Your task to perform on an android device: turn on location history Image 0: 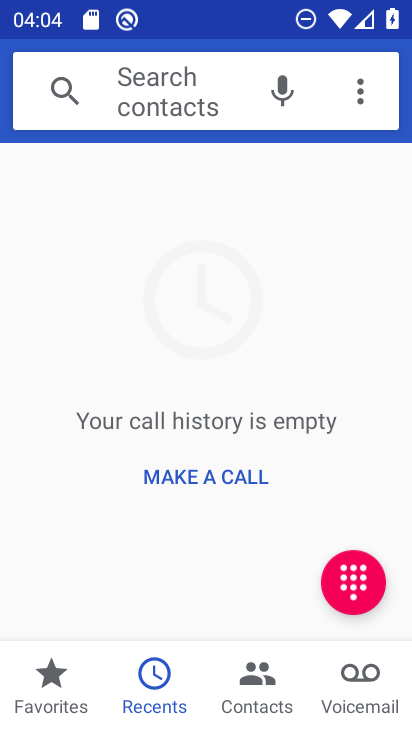
Step 0: press home button
Your task to perform on an android device: turn on location history Image 1: 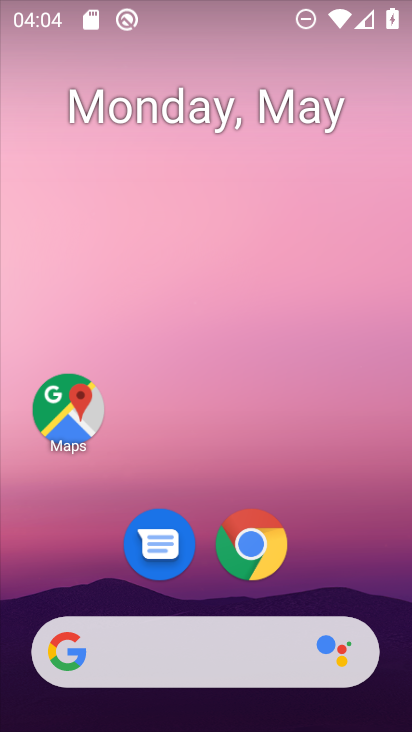
Step 1: drag from (384, 565) to (387, 172)
Your task to perform on an android device: turn on location history Image 2: 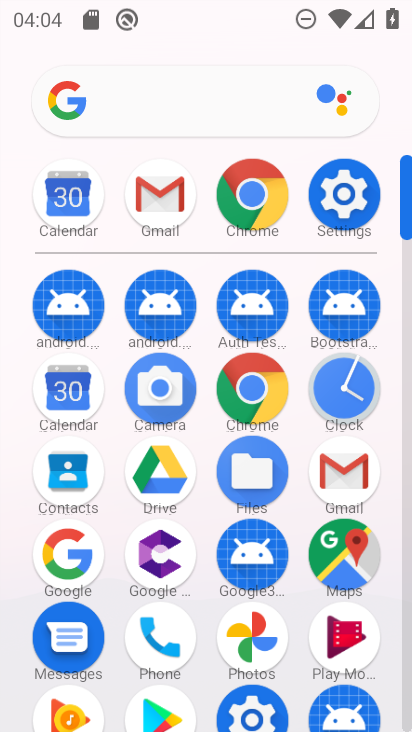
Step 2: click (351, 214)
Your task to perform on an android device: turn on location history Image 3: 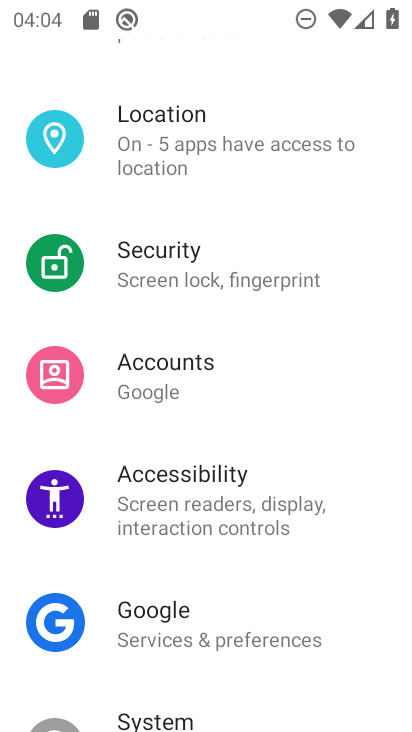
Step 3: drag from (373, 568) to (344, 389)
Your task to perform on an android device: turn on location history Image 4: 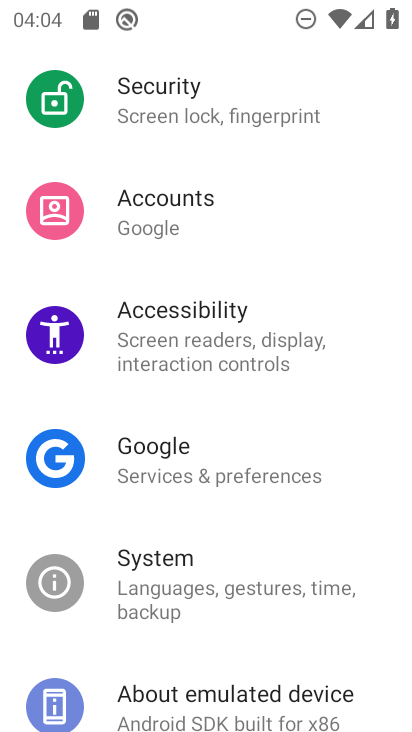
Step 4: drag from (342, 236) to (347, 418)
Your task to perform on an android device: turn on location history Image 5: 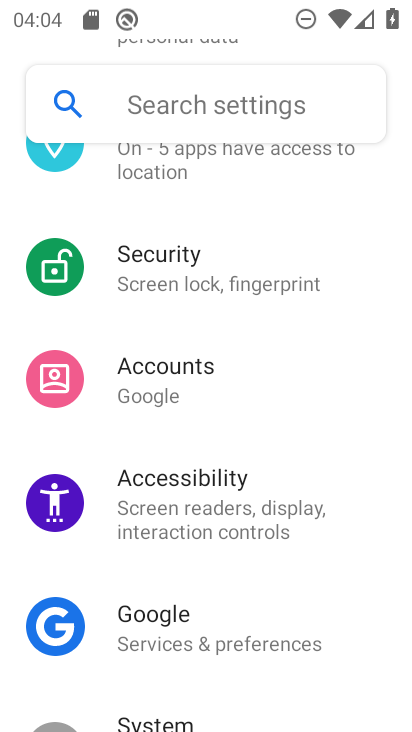
Step 5: drag from (351, 225) to (350, 374)
Your task to perform on an android device: turn on location history Image 6: 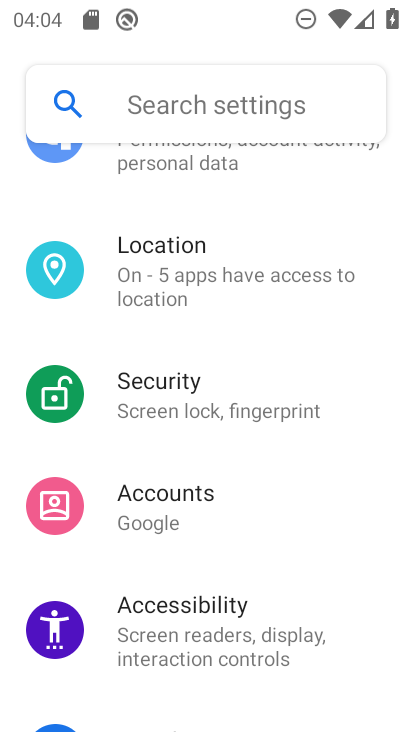
Step 6: click (297, 299)
Your task to perform on an android device: turn on location history Image 7: 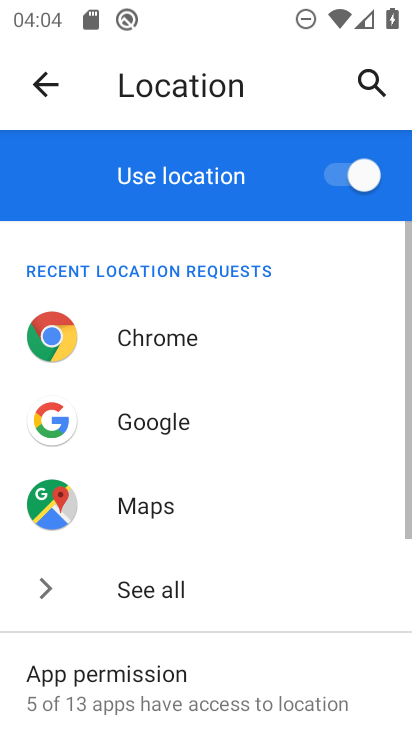
Step 7: drag from (289, 552) to (293, 435)
Your task to perform on an android device: turn on location history Image 8: 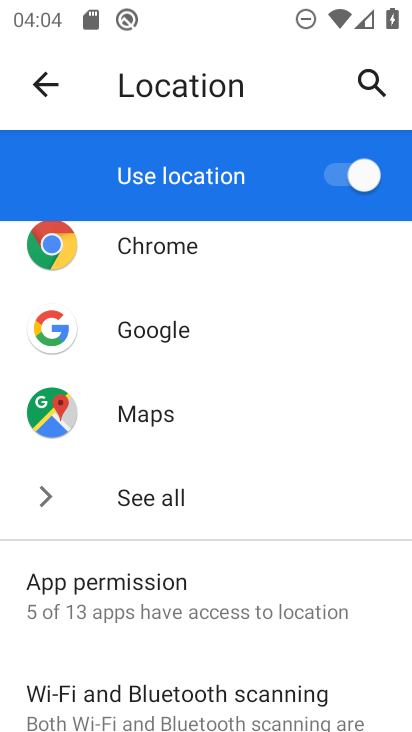
Step 8: drag from (346, 641) to (354, 409)
Your task to perform on an android device: turn on location history Image 9: 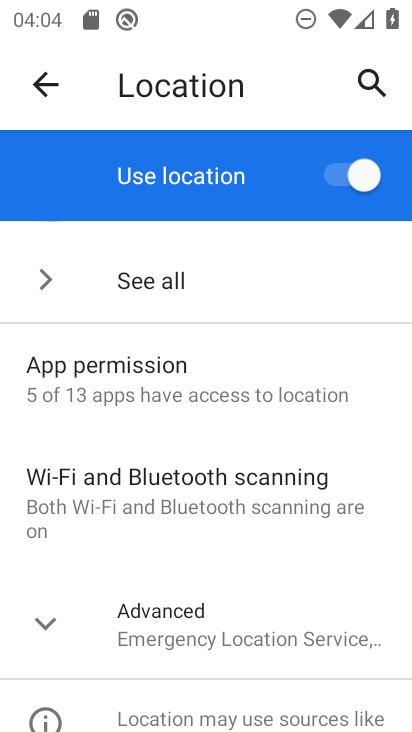
Step 9: click (348, 638)
Your task to perform on an android device: turn on location history Image 10: 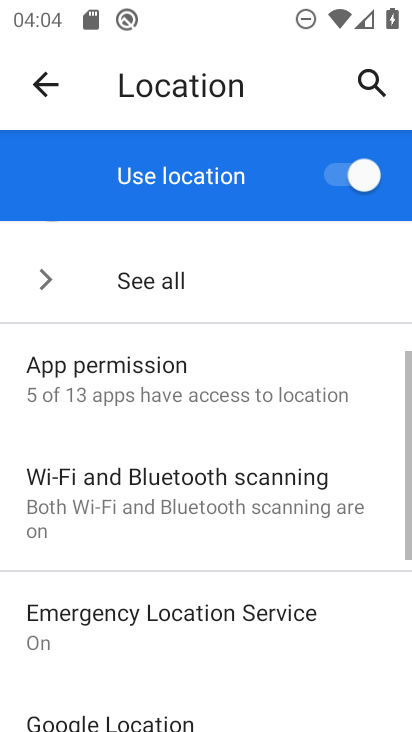
Step 10: drag from (348, 638) to (365, 488)
Your task to perform on an android device: turn on location history Image 11: 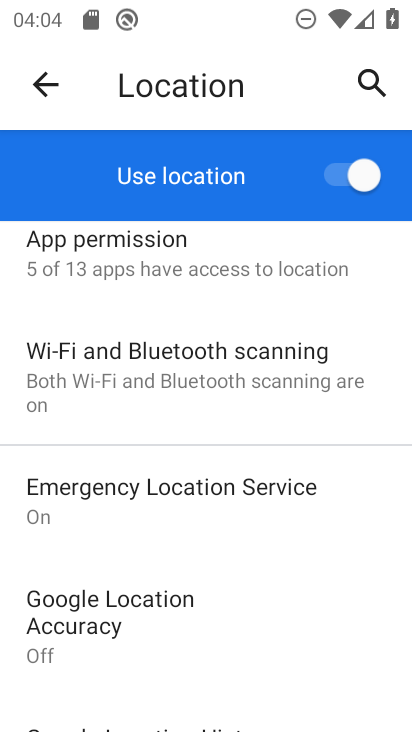
Step 11: drag from (361, 644) to (356, 439)
Your task to perform on an android device: turn on location history Image 12: 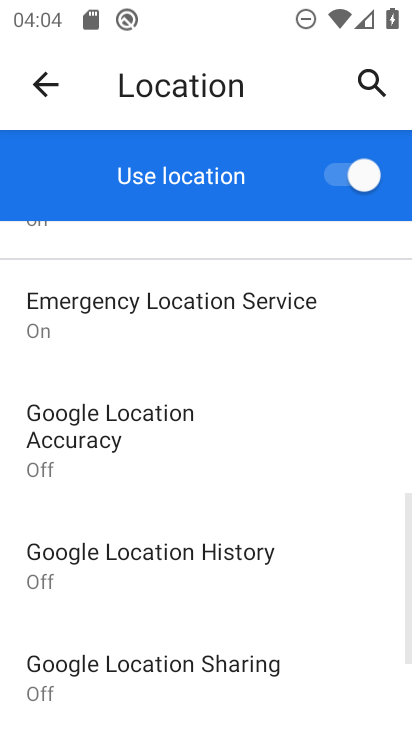
Step 12: click (296, 587)
Your task to perform on an android device: turn on location history Image 13: 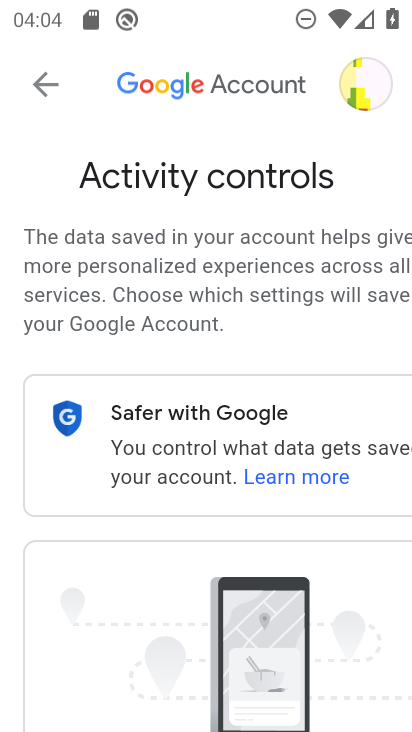
Step 13: drag from (296, 587) to (302, 427)
Your task to perform on an android device: turn on location history Image 14: 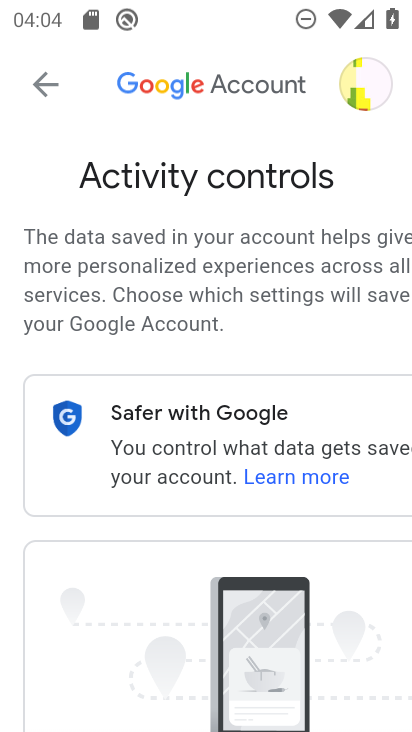
Step 14: drag from (356, 638) to (350, 436)
Your task to perform on an android device: turn on location history Image 15: 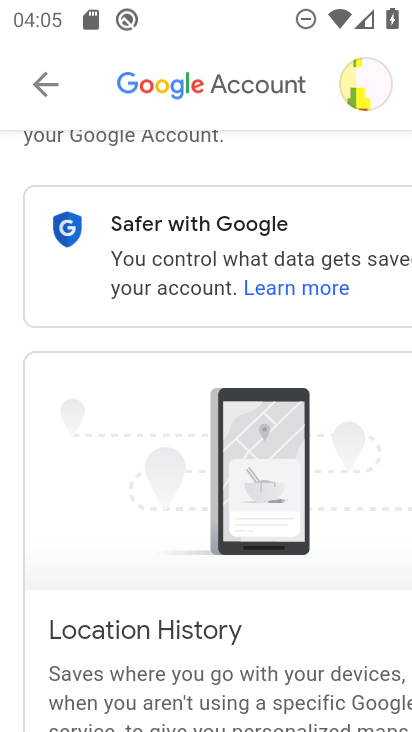
Step 15: drag from (337, 649) to (341, 443)
Your task to perform on an android device: turn on location history Image 16: 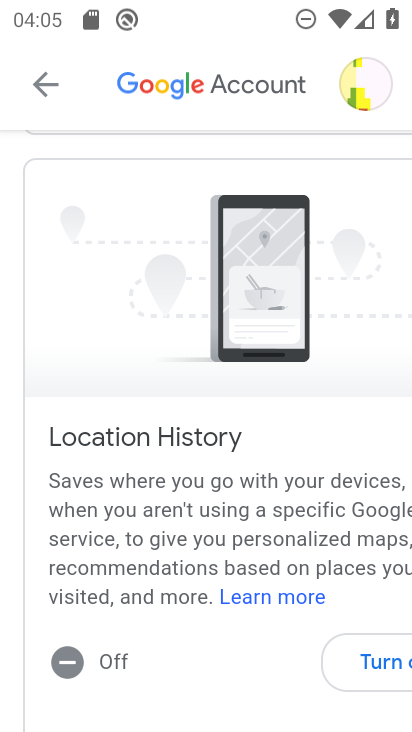
Step 16: click (371, 663)
Your task to perform on an android device: turn on location history Image 17: 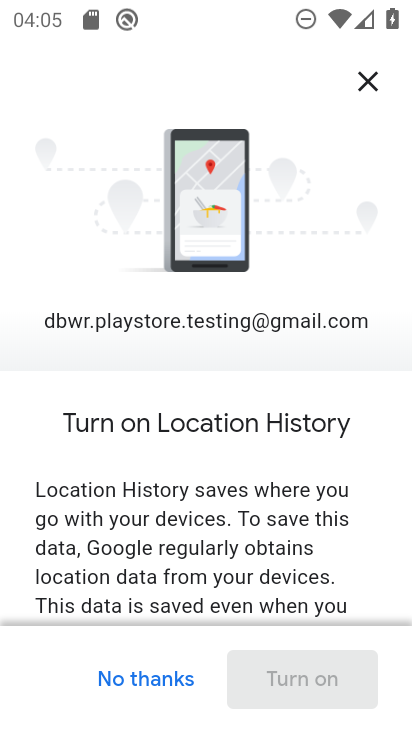
Step 17: drag from (372, 570) to (372, 429)
Your task to perform on an android device: turn on location history Image 18: 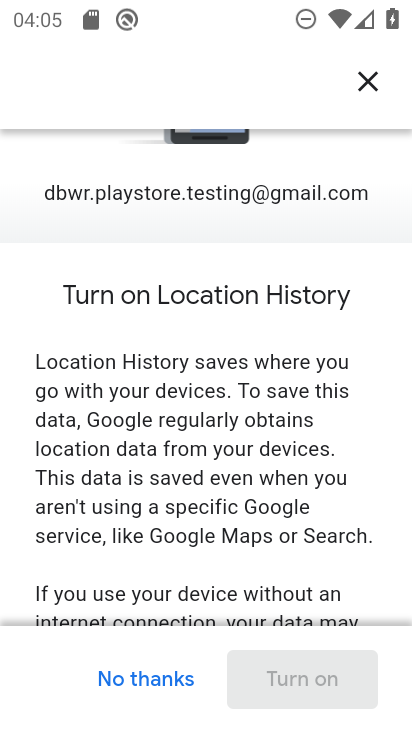
Step 18: drag from (355, 571) to (353, 394)
Your task to perform on an android device: turn on location history Image 19: 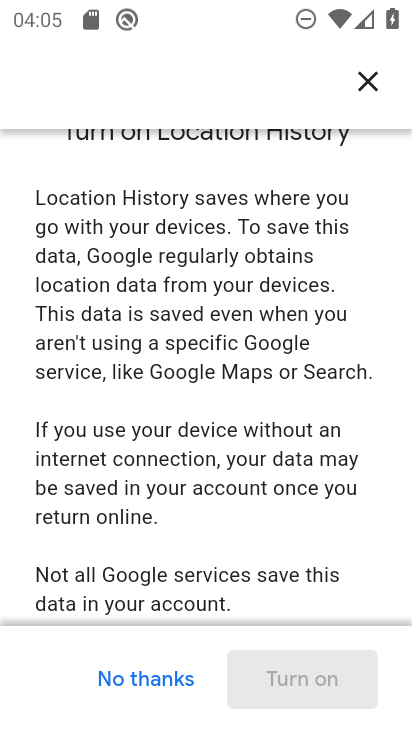
Step 19: drag from (358, 572) to (371, 391)
Your task to perform on an android device: turn on location history Image 20: 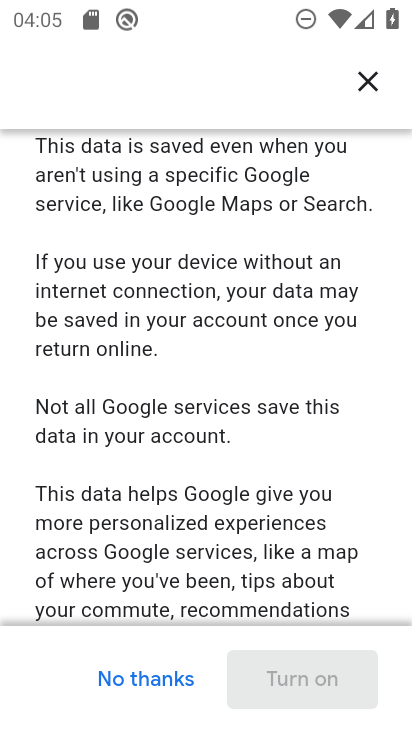
Step 20: drag from (368, 587) to (373, 393)
Your task to perform on an android device: turn on location history Image 21: 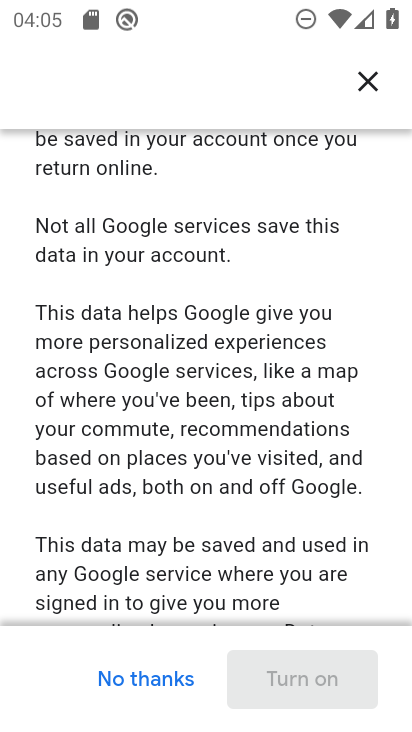
Step 21: drag from (383, 593) to (382, 399)
Your task to perform on an android device: turn on location history Image 22: 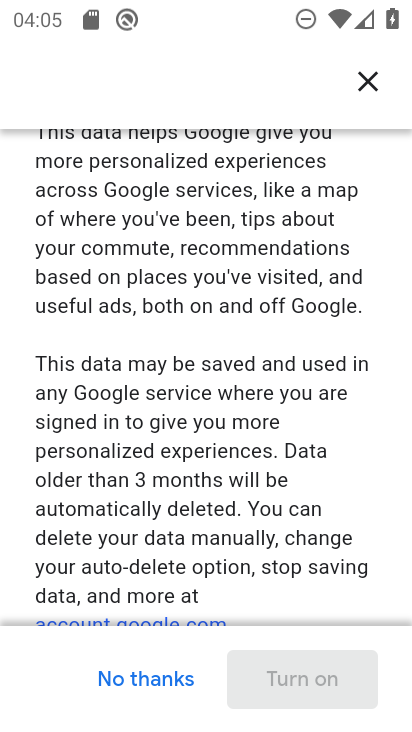
Step 22: drag from (377, 599) to (373, 343)
Your task to perform on an android device: turn on location history Image 23: 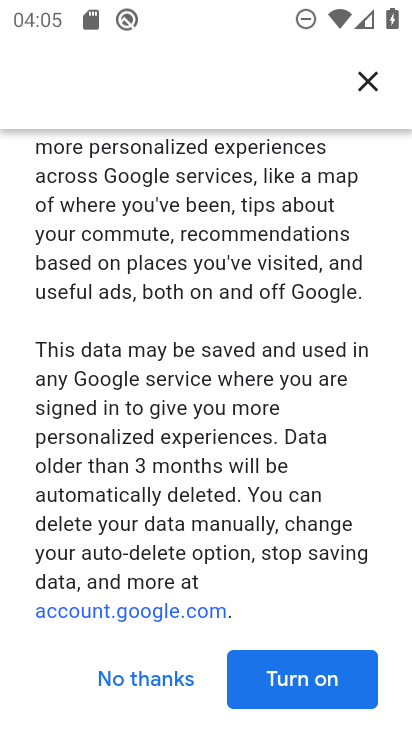
Step 23: click (309, 682)
Your task to perform on an android device: turn on location history Image 24: 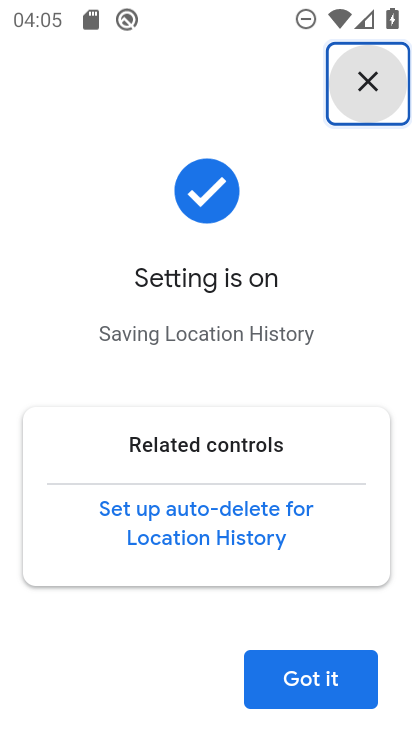
Step 24: task complete